Your task to perform on an android device: Play the last video I watched on Youtube Image 0: 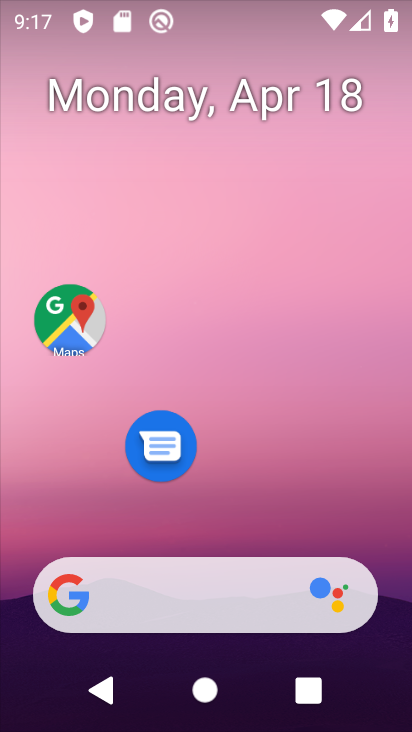
Step 0: drag from (212, 454) to (212, 47)
Your task to perform on an android device: Play the last video I watched on Youtube Image 1: 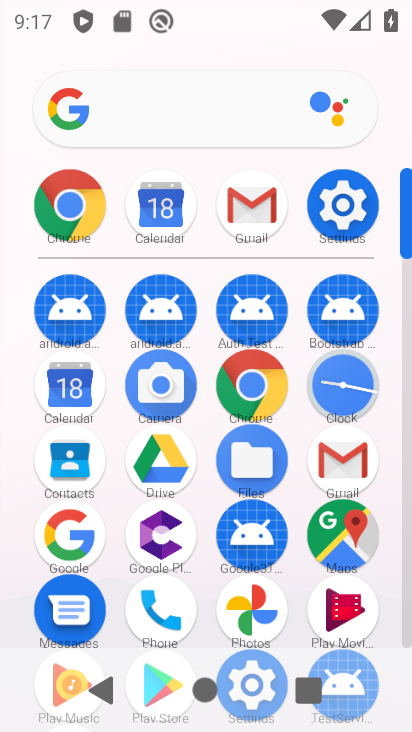
Step 1: drag from (299, 570) to (302, 144)
Your task to perform on an android device: Play the last video I watched on Youtube Image 2: 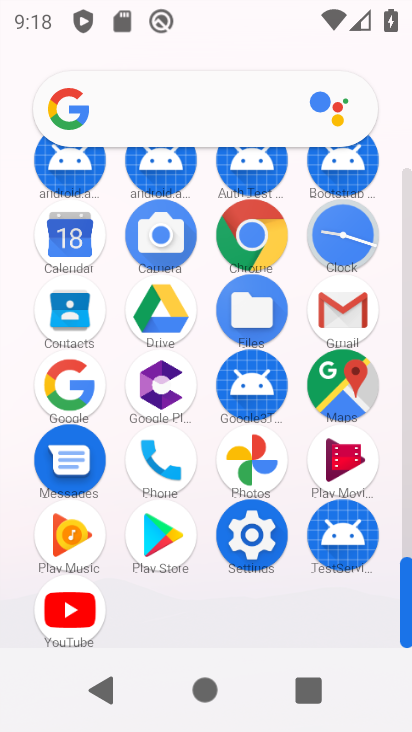
Step 2: click (67, 603)
Your task to perform on an android device: Play the last video I watched on Youtube Image 3: 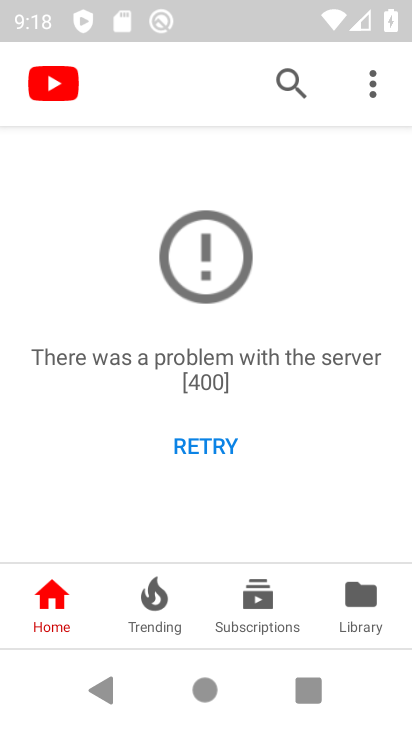
Step 3: task complete